Your task to perform on an android device: turn on data saver in the chrome app Image 0: 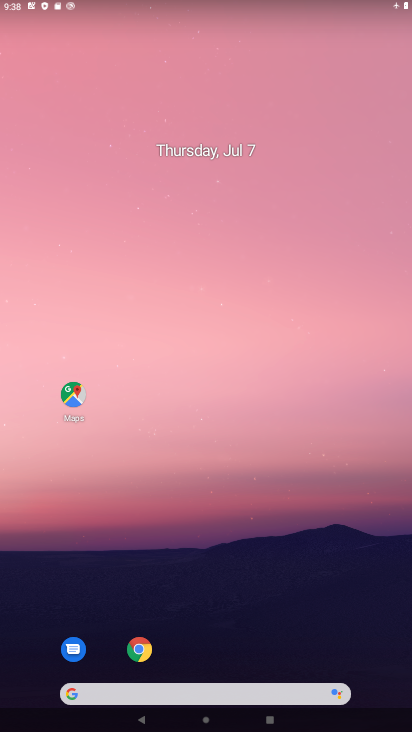
Step 0: drag from (241, 724) to (233, 124)
Your task to perform on an android device: turn on data saver in the chrome app Image 1: 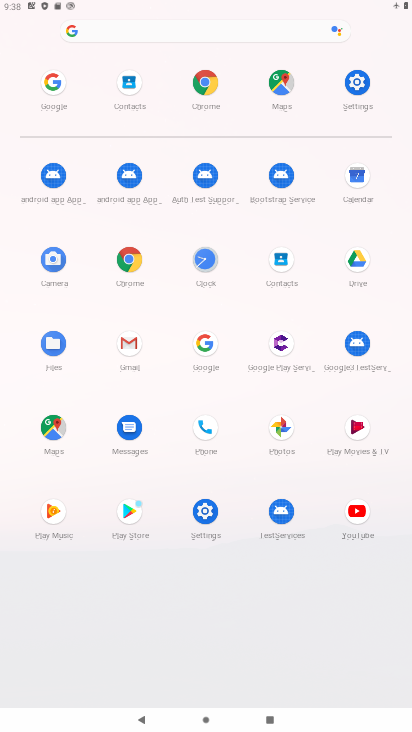
Step 1: click (131, 265)
Your task to perform on an android device: turn on data saver in the chrome app Image 2: 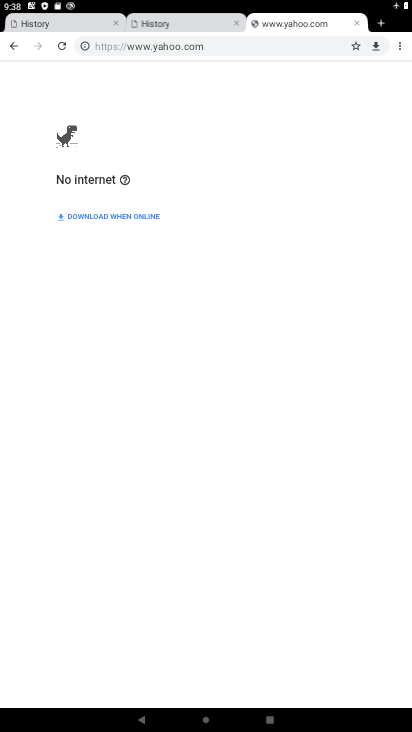
Step 2: click (402, 47)
Your task to perform on an android device: turn on data saver in the chrome app Image 3: 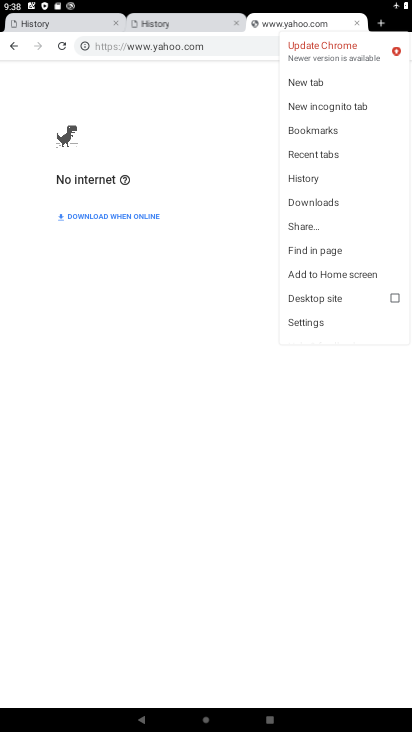
Step 3: click (298, 317)
Your task to perform on an android device: turn on data saver in the chrome app Image 4: 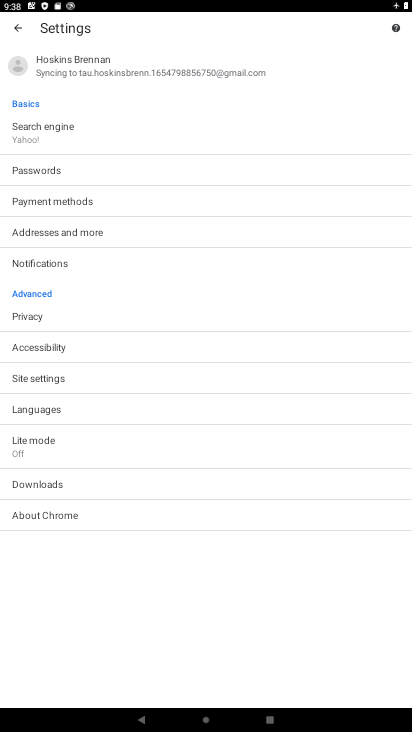
Step 4: click (40, 445)
Your task to perform on an android device: turn on data saver in the chrome app Image 5: 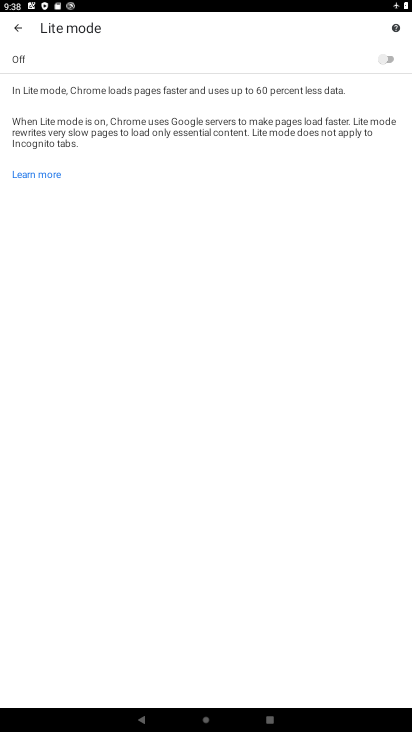
Step 5: click (393, 57)
Your task to perform on an android device: turn on data saver in the chrome app Image 6: 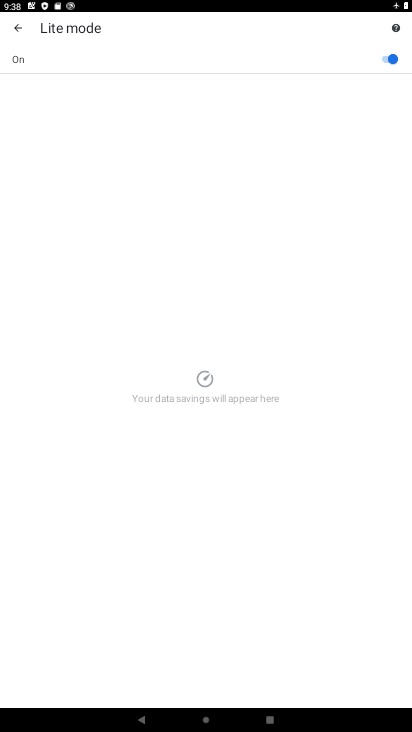
Step 6: task complete